Your task to perform on an android device: turn off translation in the chrome app Image 0: 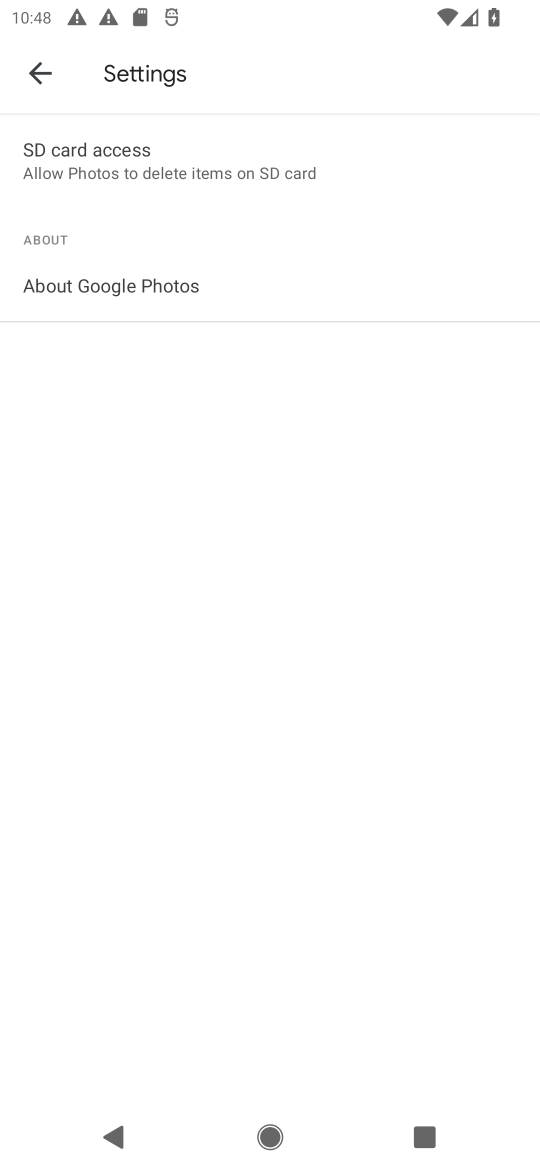
Step 0: press home button
Your task to perform on an android device: turn off translation in the chrome app Image 1: 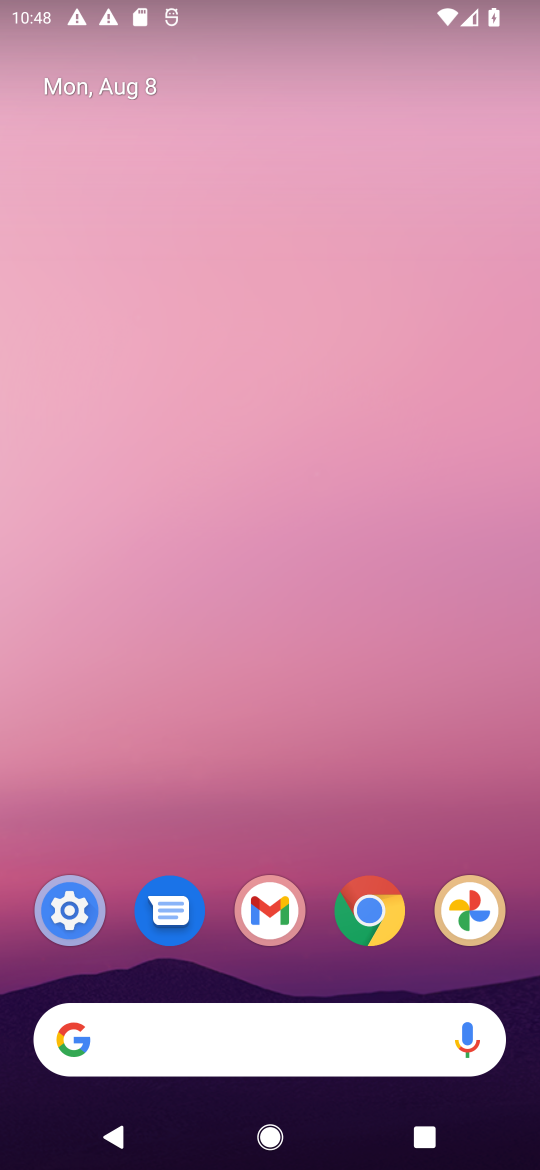
Step 1: drag from (273, 1054) to (170, 226)
Your task to perform on an android device: turn off translation in the chrome app Image 2: 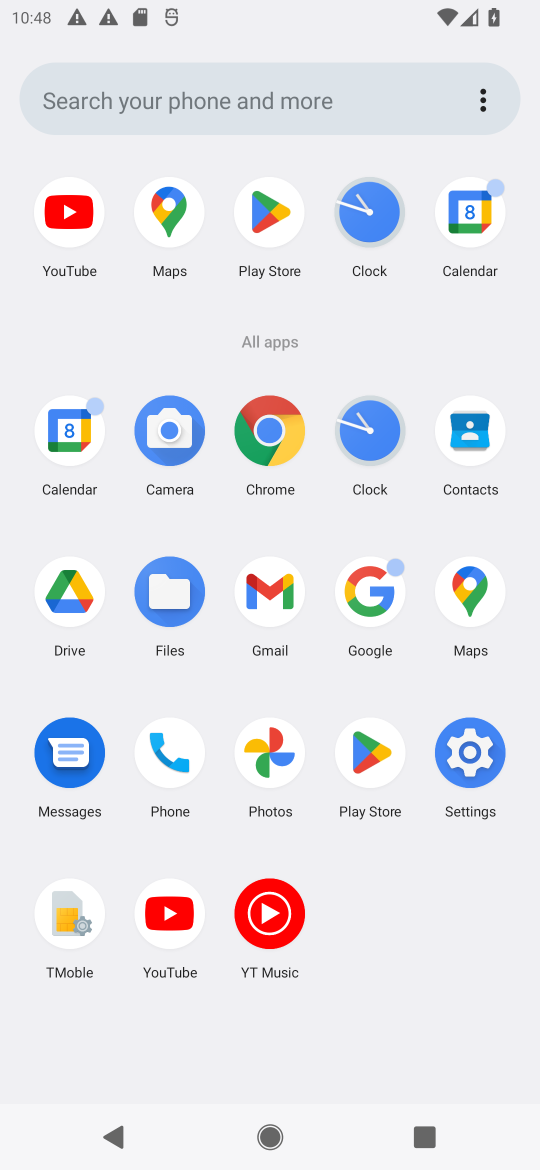
Step 2: click (261, 434)
Your task to perform on an android device: turn off translation in the chrome app Image 3: 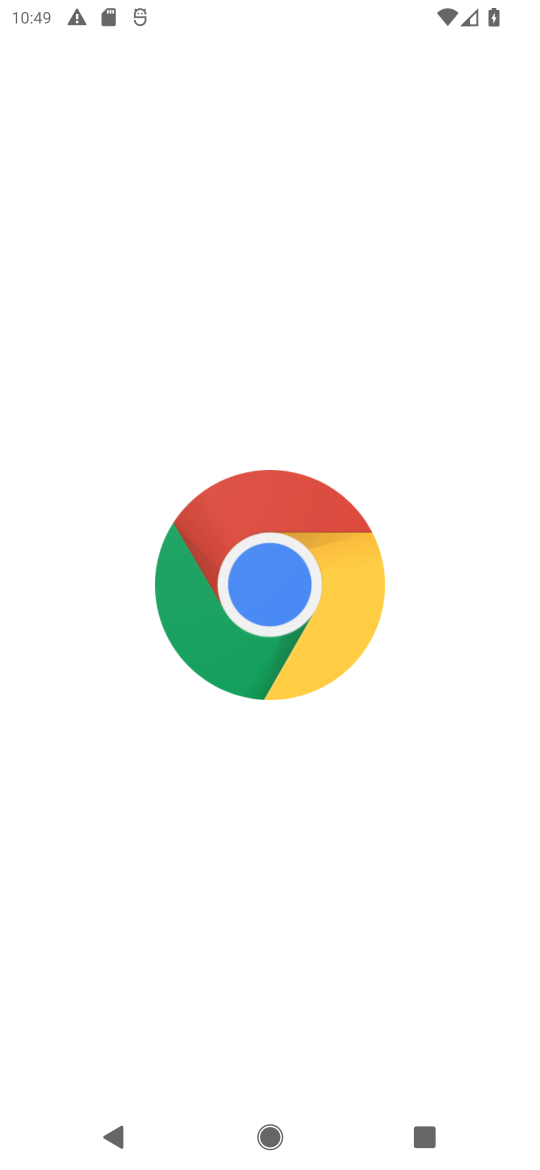
Step 3: task complete